Your task to perform on an android device: allow notifications from all sites in the chrome app Image 0: 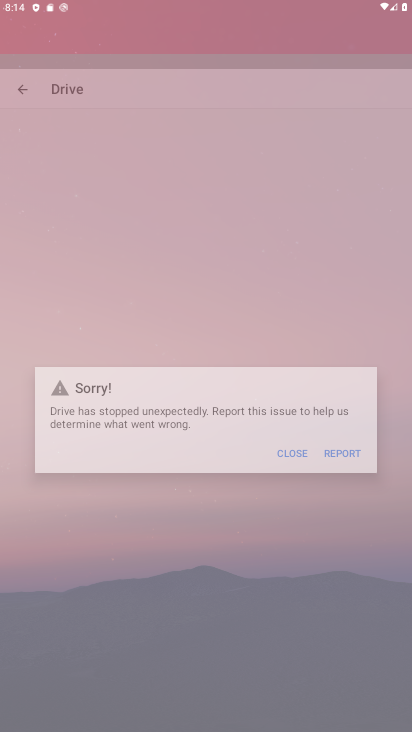
Step 0: click (277, 121)
Your task to perform on an android device: allow notifications from all sites in the chrome app Image 1: 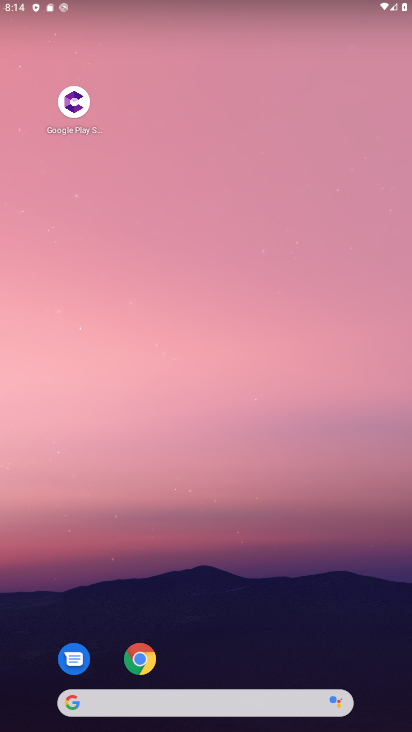
Step 1: drag from (202, 553) to (387, 2)
Your task to perform on an android device: allow notifications from all sites in the chrome app Image 2: 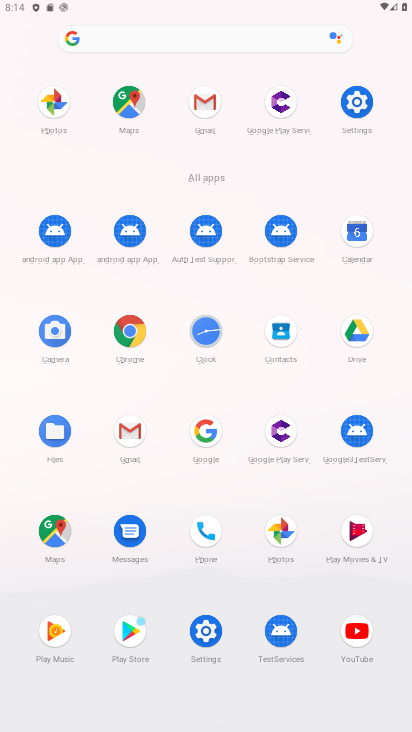
Step 2: click (132, 330)
Your task to perform on an android device: allow notifications from all sites in the chrome app Image 3: 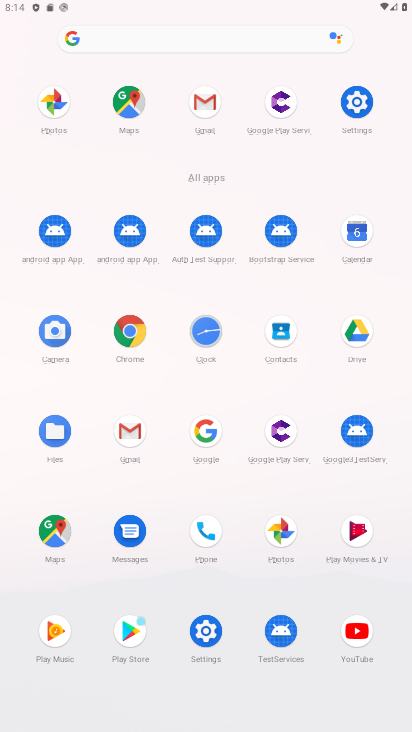
Step 3: click (132, 330)
Your task to perform on an android device: allow notifications from all sites in the chrome app Image 4: 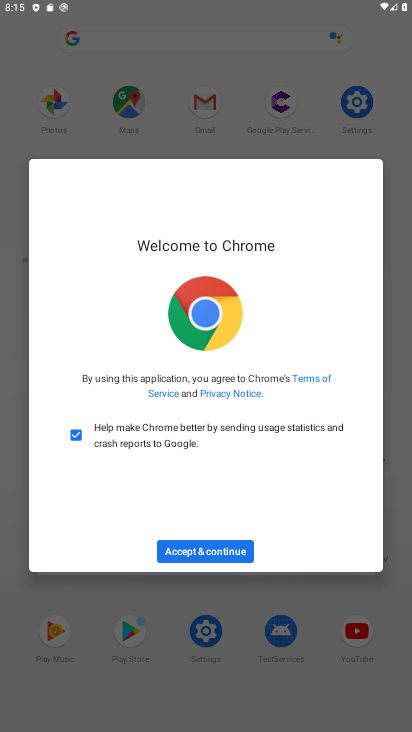
Step 4: click (220, 557)
Your task to perform on an android device: allow notifications from all sites in the chrome app Image 5: 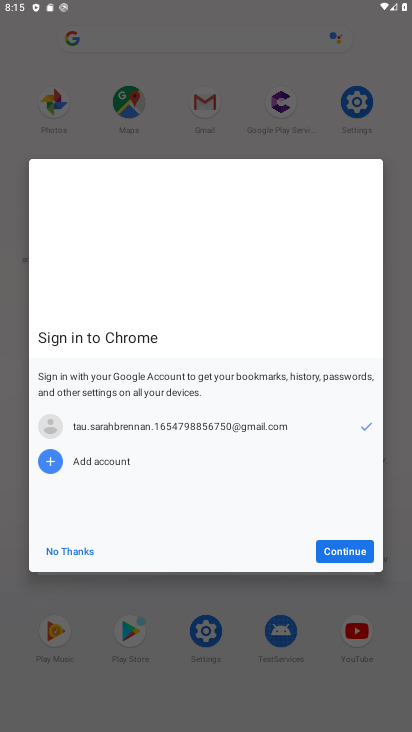
Step 5: click (58, 554)
Your task to perform on an android device: allow notifications from all sites in the chrome app Image 6: 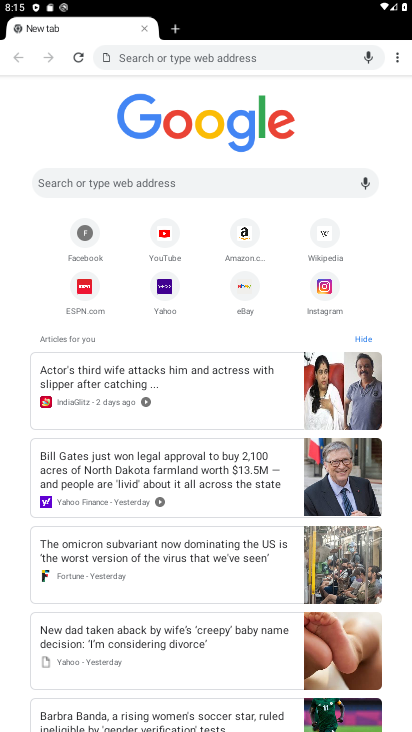
Step 6: click (399, 51)
Your task to perform on an android device: allow notifications from all sites in the chrome app Image 7: 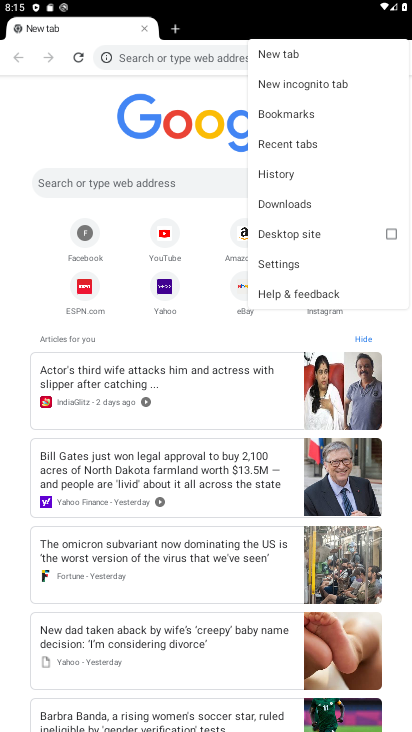
Step 7: click (292, 260)
Your task to perform on an android device: allow notifications from all sites in the chrome app Image 8: 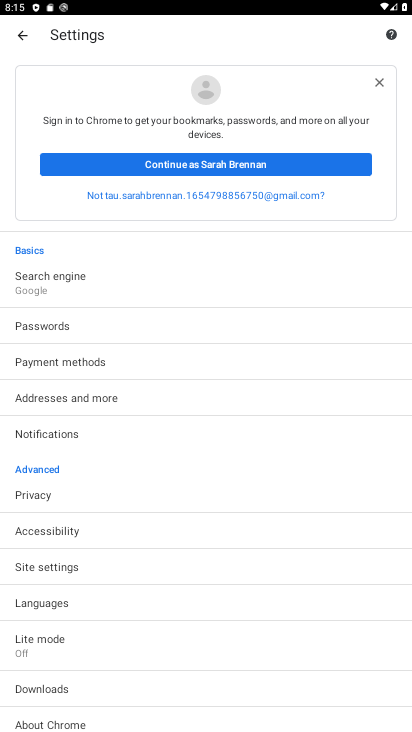
Step 8: drag from (144, 598) to (161, 363)
Your task to perform on an android device: allow notifications from all sites in the chrome app Image 9: 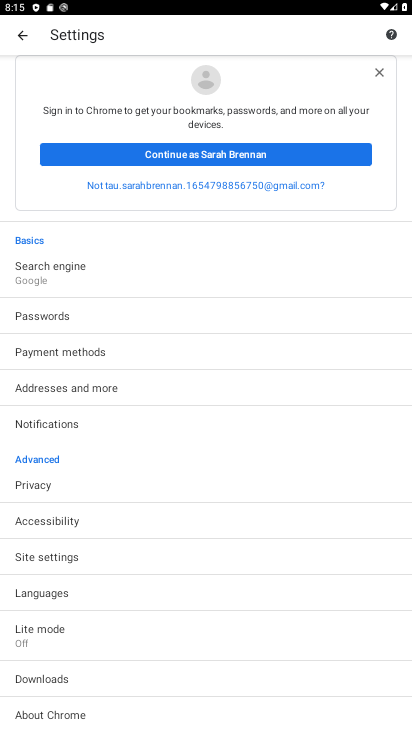
Step 9: click (119, 547)
Your task to perform on an android device: allow notifications from all sites in the chrome app Image 10: 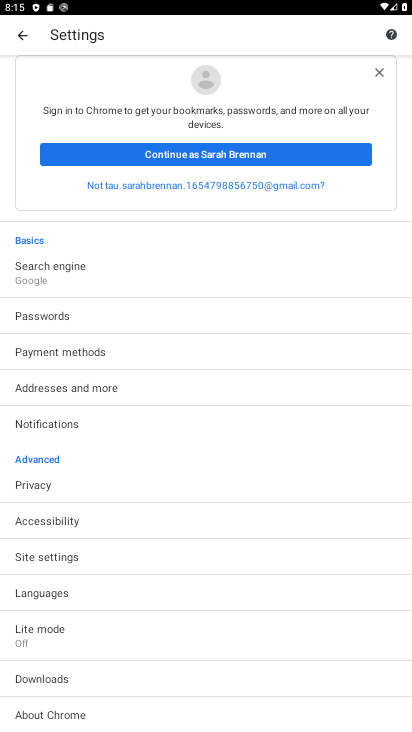
Step 10: click (119, 547)
Your task to perform on an android device: allow notifications from all sites in the chrome app Image 11: 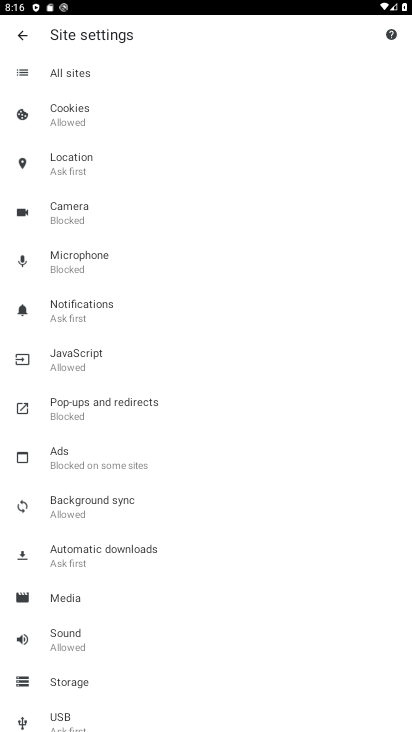
Step 11: click (67, 306)
Your task to perform on an android device: allow notifications from all sites in the chrome app Image 12: 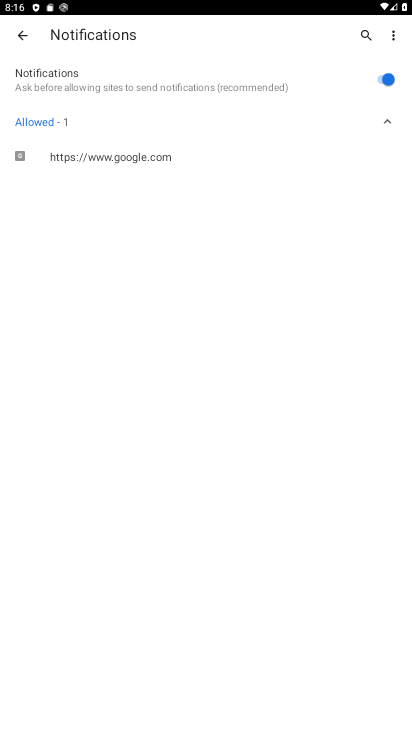
Step 12: task complete